Your task to perform on an android device: Go to eBay Image 0: 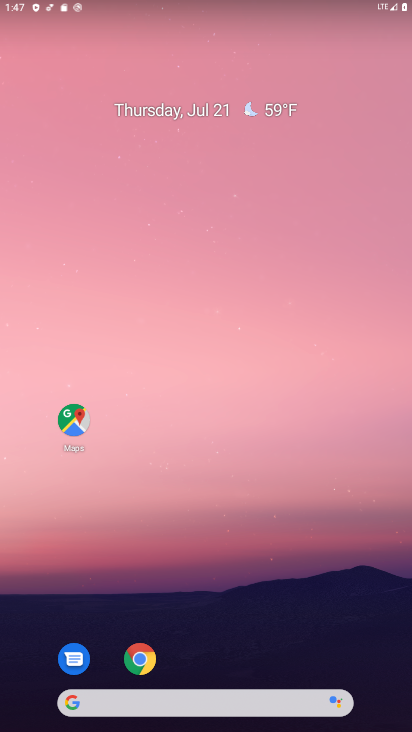
Step 0: click (135, 649)
Your task to perform on an android device: Go to eBay Image 1: 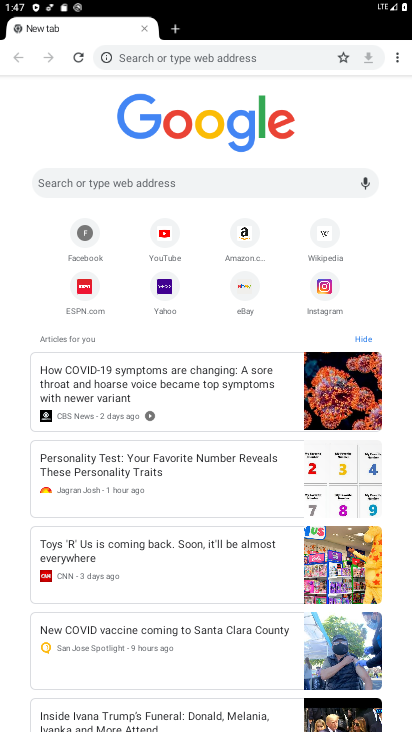
Step 1: click (242, 289)
Your task to perform on an android device: Go to eBay Image 2: 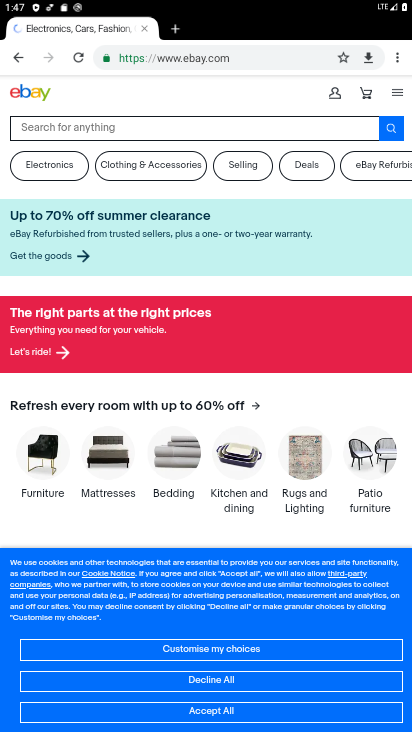
Step 2: task complete